Your task to perform on an android device: open chrome privacy settings Image 0: 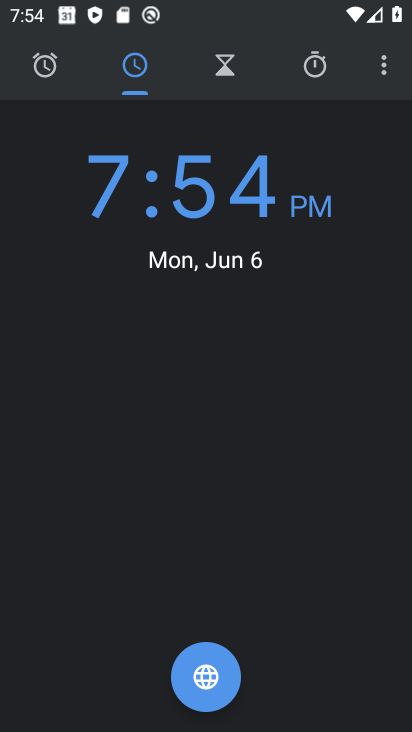
Step 0: press home button
Your task to perform on an android device: open chrome privacy settings Image 1: 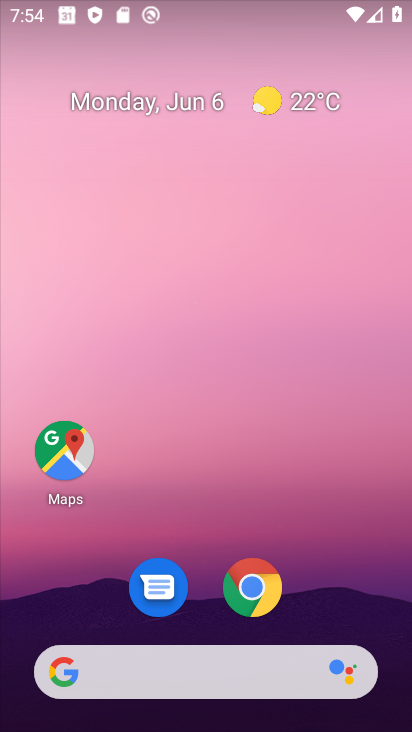
Step 1: drag from (195, 650) to (219, 264)
Your task to perform on an android device: open chrome privacy settings Image 2: 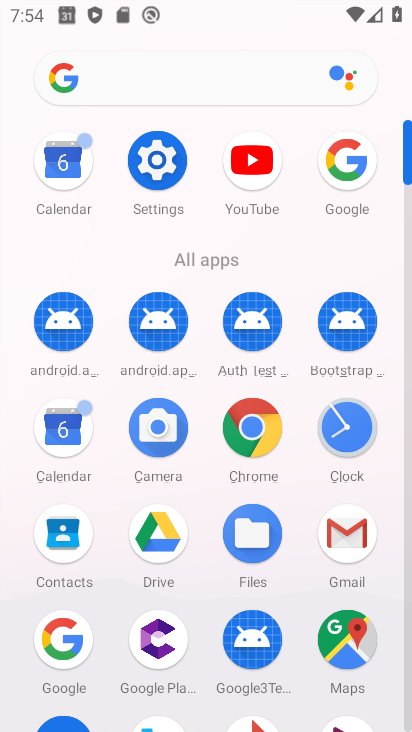
Step 2: click (247, 432)
Your task to perform on an android device: open chrome privacy settings Image 3: 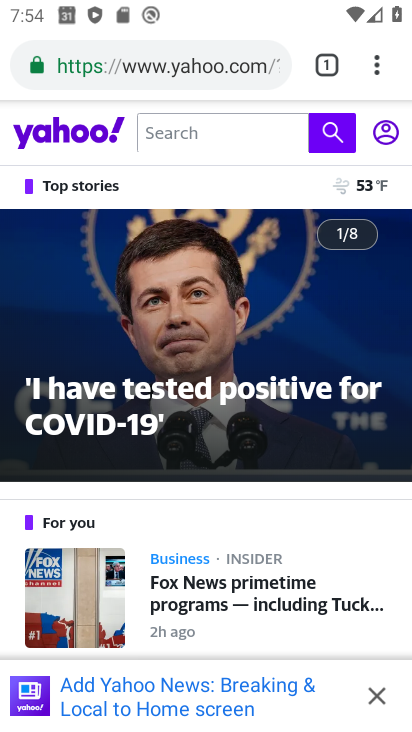
Step 3: click (380, 60)
Your task to perform on an android device: open chrome privacy settings Image 4: 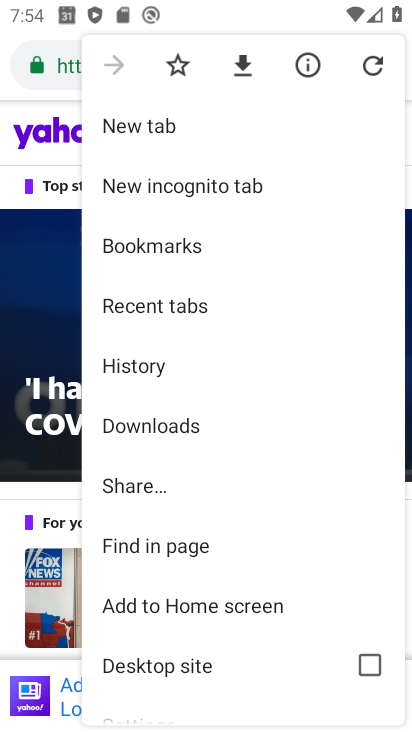
Step 4: drag from (149, 553) to (184, 184)
Your task to perform on an android device: open chrome privacy settings Image 5: 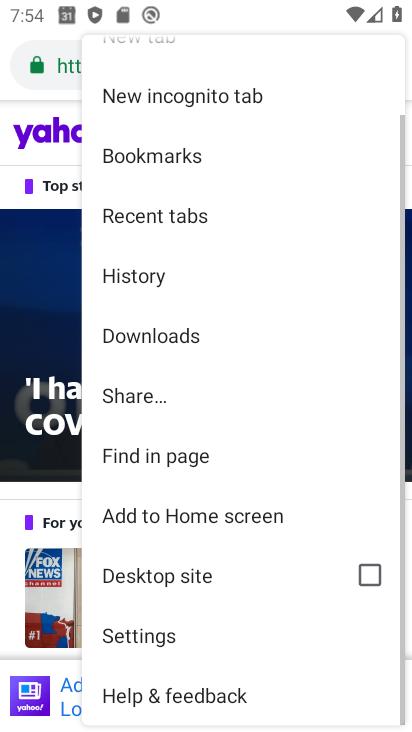
Step 5: click (157, 637)
Your task to perform on an android device: open chrome privacy settings Image 6: 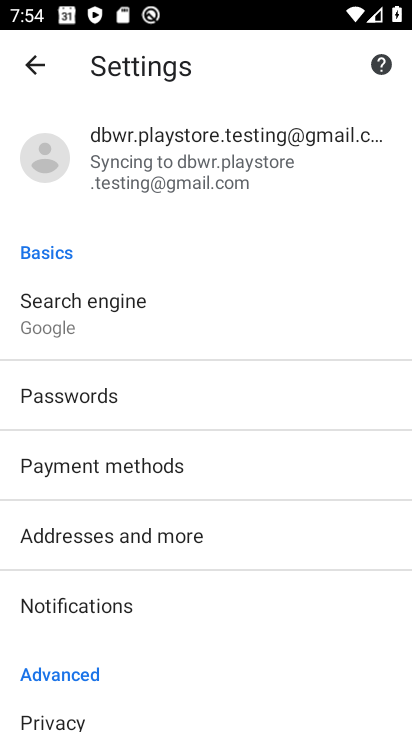
Step 6: click (42, 723)
Your task to perform on an android device: open chrome privacy settings Image 7: 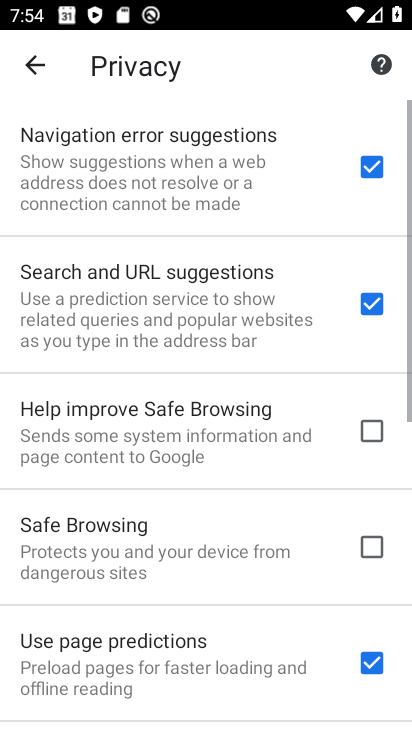
Step 7: task complete